Your task to perform on an android device: set default search engine in the chrome app Image 0: 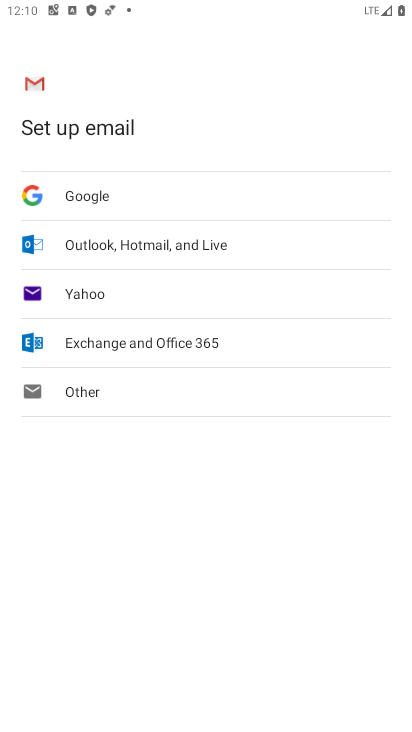
Step 0: press home button
Your task to perform on an android device: set default search engine in the chrome app Image 1: 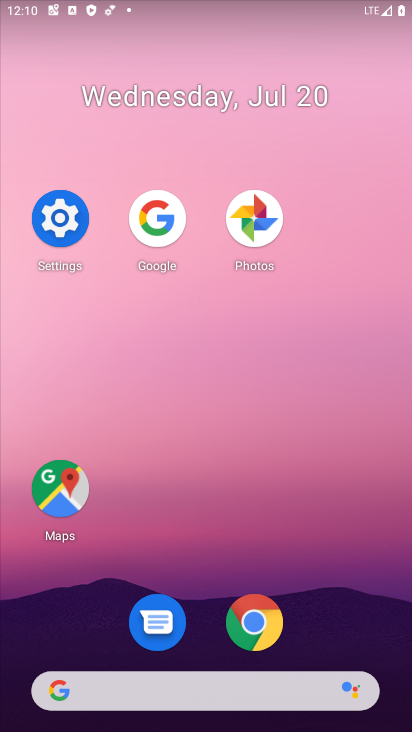
Step 1: click (274, 618)
Your task to perform on an android device: set default search engine in the chrome app Image 2: 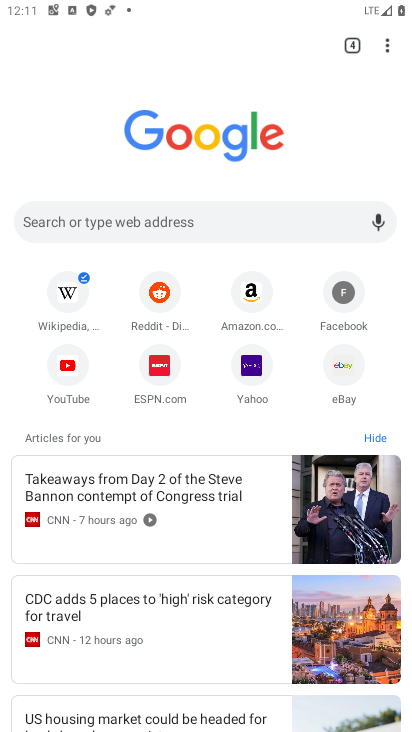
Step 2: click (393, 52)
Your task to perform on an android device: set default search engine in the chrome app Image 3: 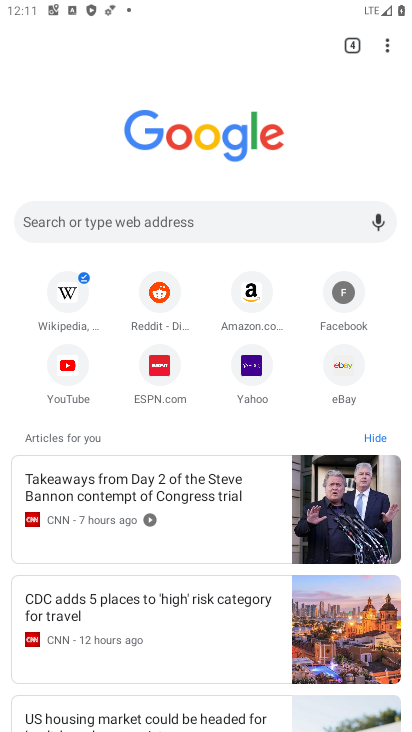
Step 3: click (391, 53)
Your task to perform on an android device: set default search engine in the chrome app Image 4: 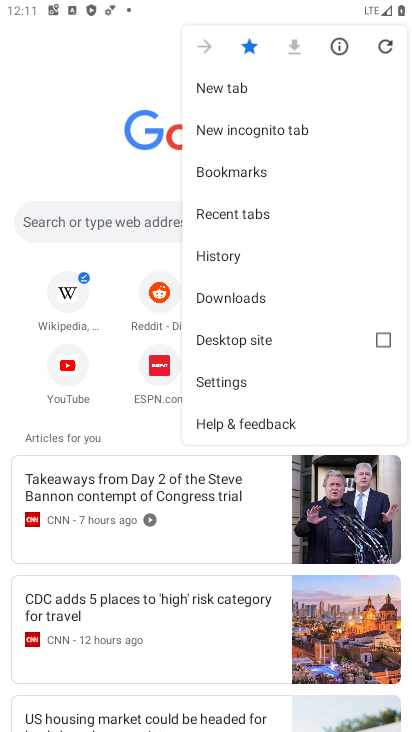
Step 4: click (287, 379)
Your task to perform on an android device: set default search engine in the chrome app Image 5: 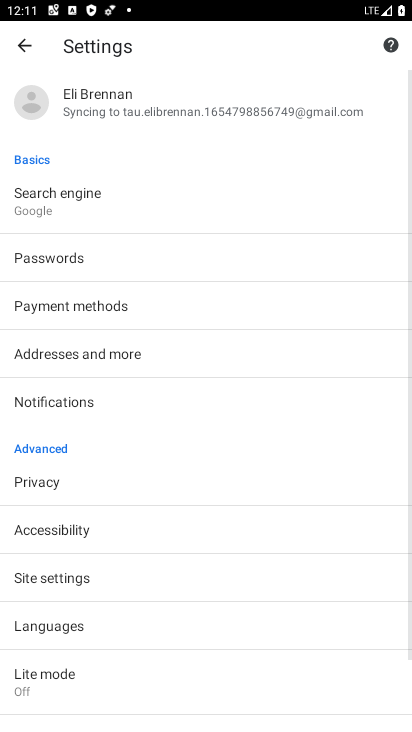
Step 5: click (65, 187)
Your task to perform on an android device: set default search engine in the chrome app Image 6: 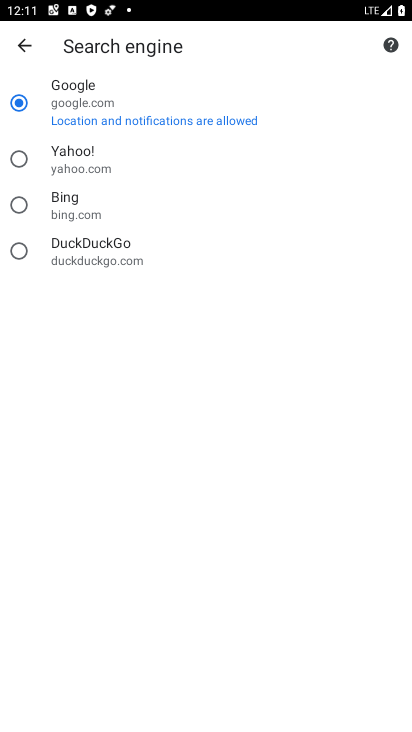
Step 6: task complete